Your task to perform on an android device: empty trash in the gmail app Image 0: 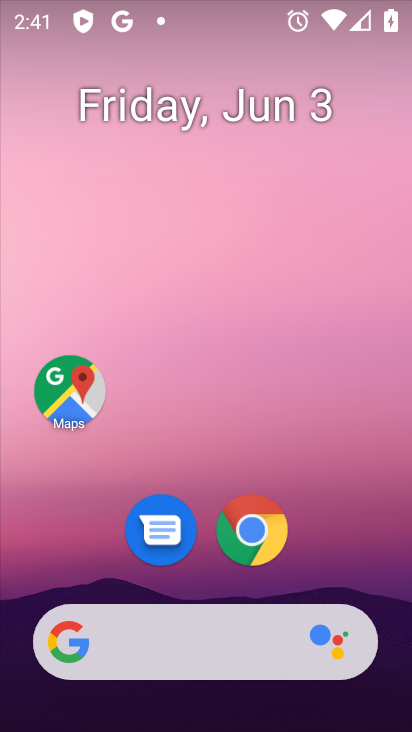
Step 0: drag from (162, 729) to (145, 75)
Your task to perform on an android device: empty trash in the gmail app Image 1: 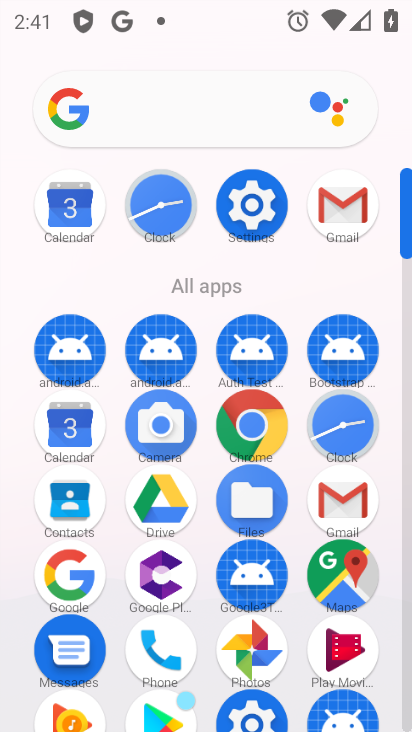
Step 1: click (357, 503)
Your task to perform on an android device: empty trash in the gmail app Image 2: 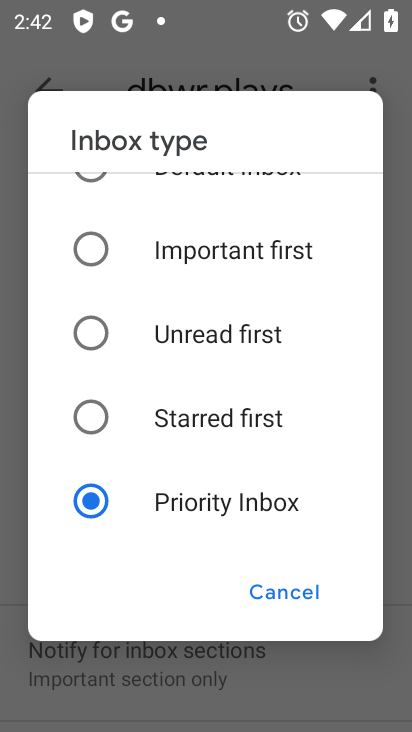
Step 2: task complete